Your task to perform on an android device: delete the emails in spam in the gmail app Image 0: 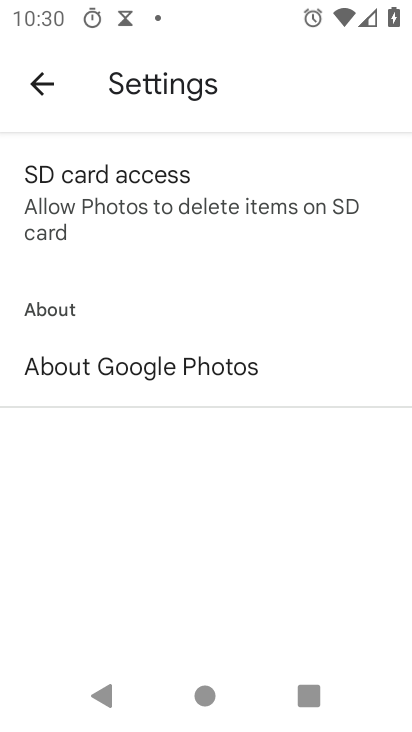
Step 0: press home button
Your task to perform on an android device: delete the emails in spam in the gmail app Image 1: 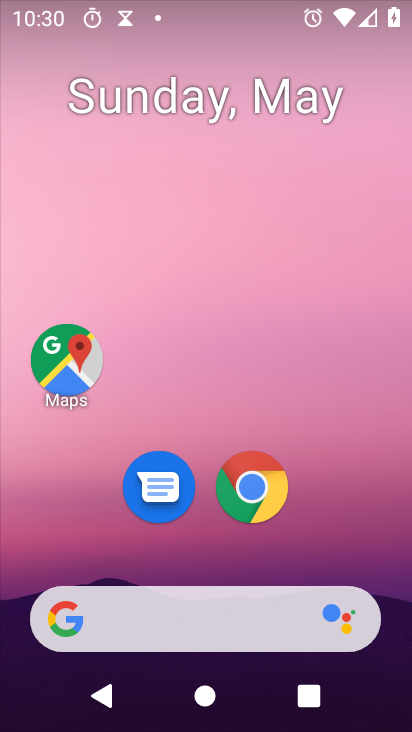
Step 1: drag from (316, 555) to (336, 18)
Your task to perform on an android device: delete the emails in spam in the gmail app Image 2: 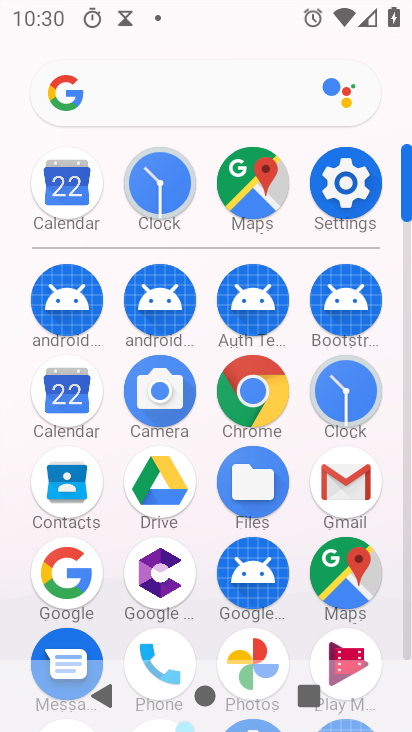
Step 2: click (355, 480)
Your task to perform on an android device: delete the emails in spam in the gmail app Image 3: 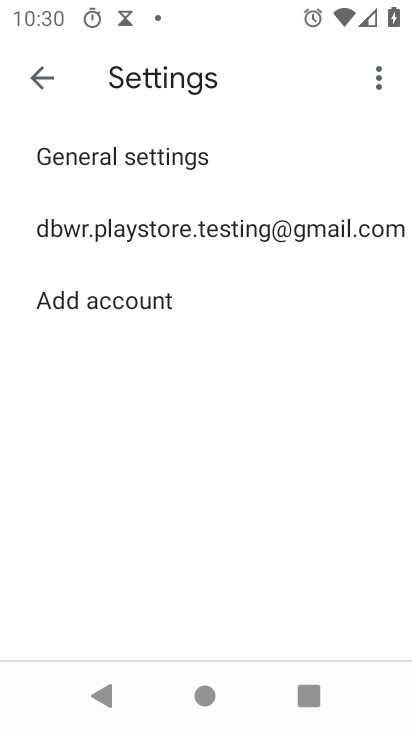
Step 3: click (59, 78)
Your task to perform on an android device: delete the emails in spam in the gmail app Image 4: 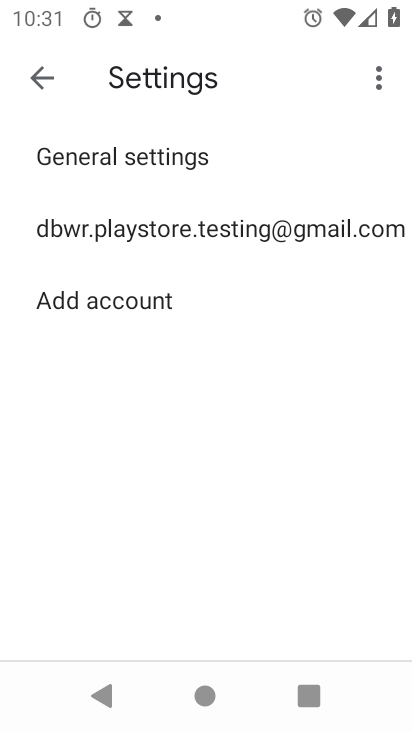
Step 4: click (59, 76)
Your task to perform on an android device: delete the emails in spam in the gmail app Image 5: 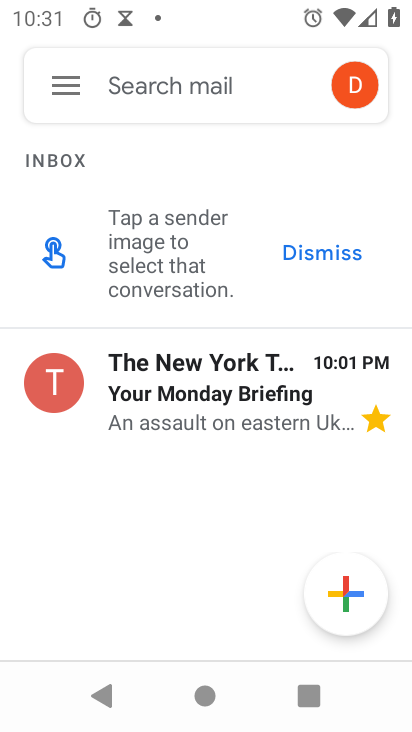
Step 5: click (59, 77)
Your task to perform on an android device: delete the emails in spam in the gmail app Image 6: 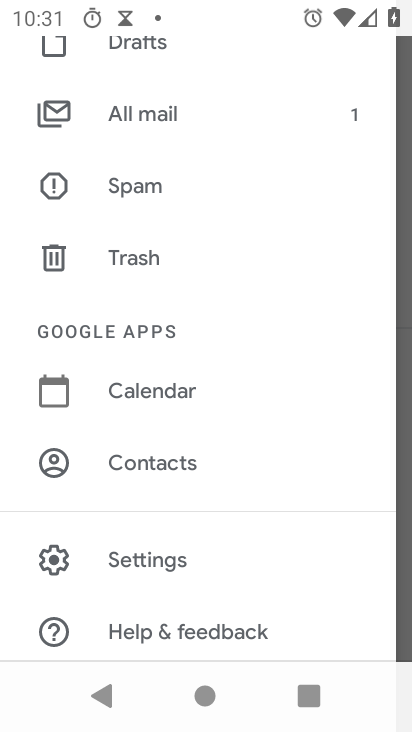
Step 6: click (79, 195)
Your task to perform on an android device: delete the emails in spam in the gmail app Image 7: 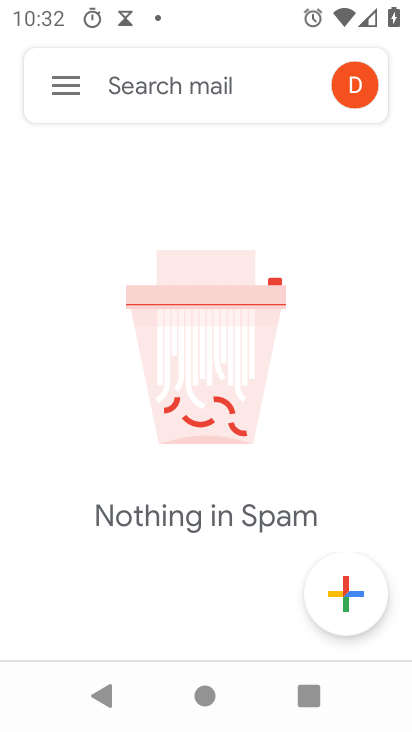
Step 7: click (56, 99)
Your task to perform on an android device: delete the emails in spam in the gmail app Image 8: 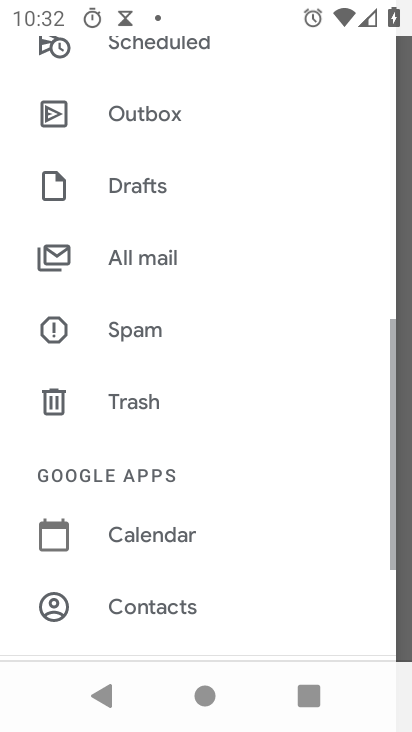
Step 8: drag from (87, 190) to (112, 545)
Your task to perform on an android device: delete the emails in spam in the gmail app Image 9: 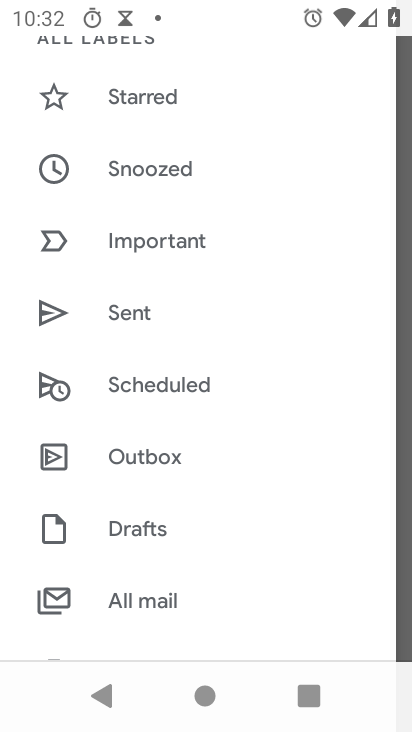
Step 9: drag from (136, 575) to (143, 281)
Your task to perform on an android device: delete the emails in spam in the gmail app Image 10: 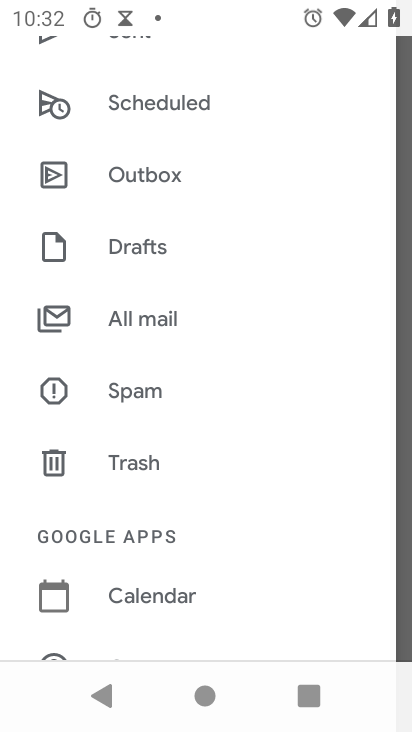
Step 10: click (119, 404)
Your task to perform on an android device: delete the emails in spam in the gmail app Image 11: 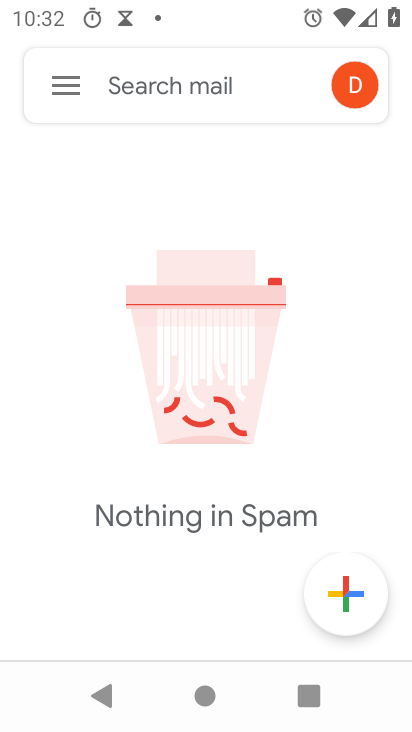
Step 11: task complete